Your task to perform on an android device: Turn off the flashlight Image 0: 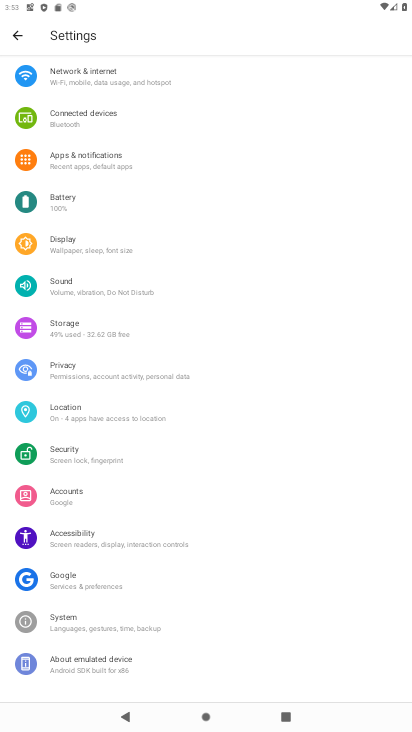
Step 0: drag from (308, 4) to (314, 527)
Your task to perform on an android device: Turn off the flashlight Image 1: 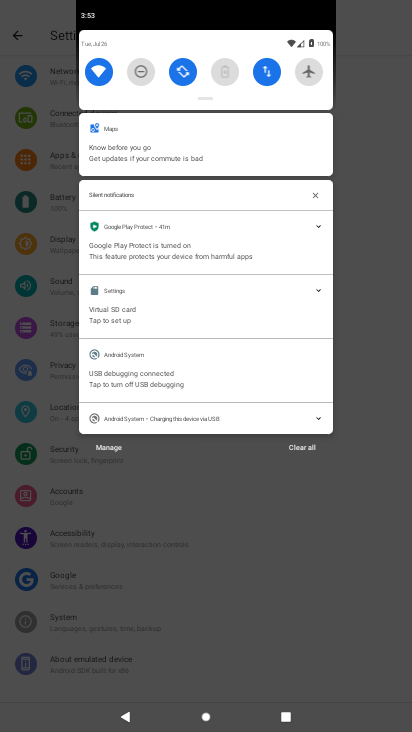
Step 1: drag from (216, 90) to (256, 413)
Your task to perform on an android device: Turn off the flashlight Image 2: 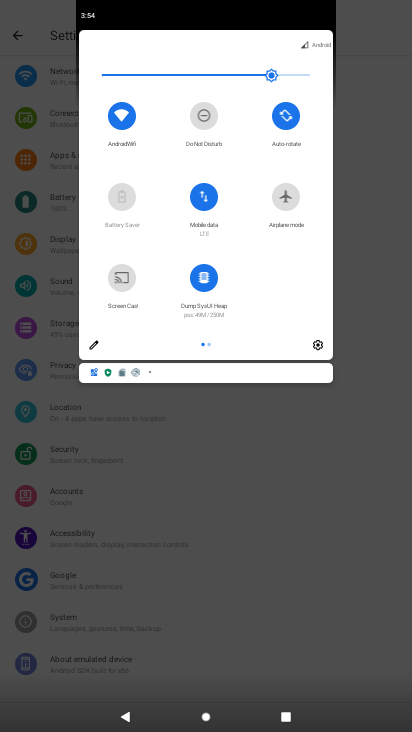
Step 2: click (90, 345)
Your task to perform on an android device: Turn off the flashlight Image 3: 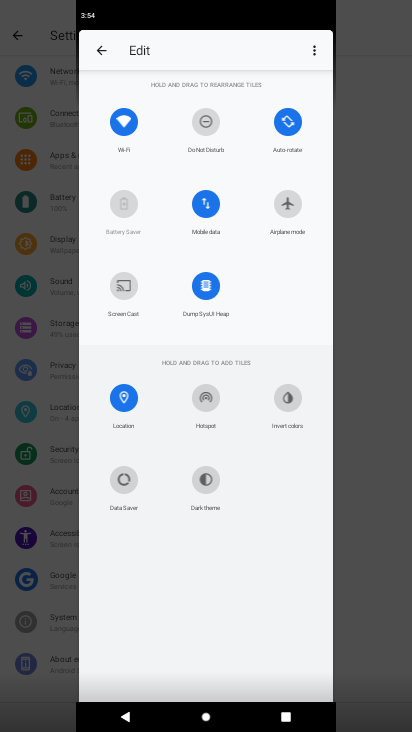
Step 3: task complete